Your task to perform on an android device: create a new album in the google photos Image 0: 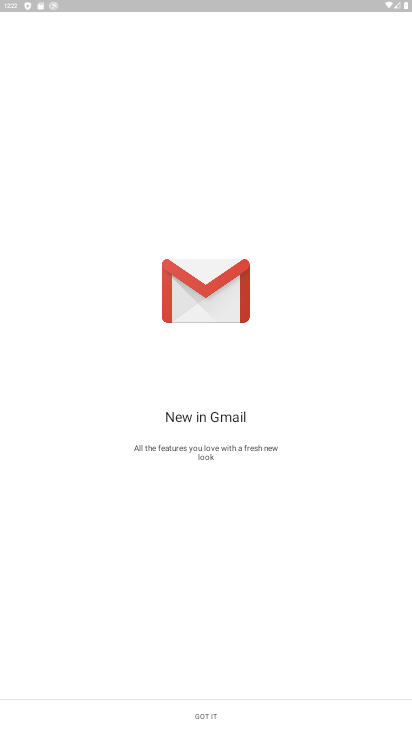
Step 0: click (212, 713)
Your task to perform on an android device: create a new album in the google photos Image 1: 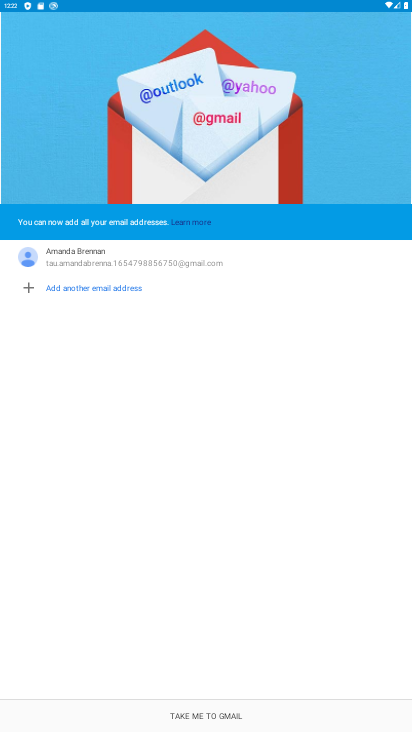
Step 1: press home button
Your task to perform on an android device: create a new album in the google photos Image 2: 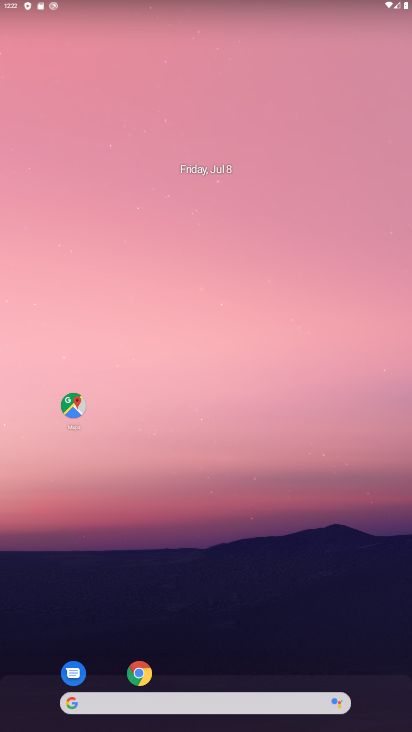
Step 2: drag from (218, 670) to (232, 62)
Your task to perform on an android device: create a new album in the google photos Image 3: 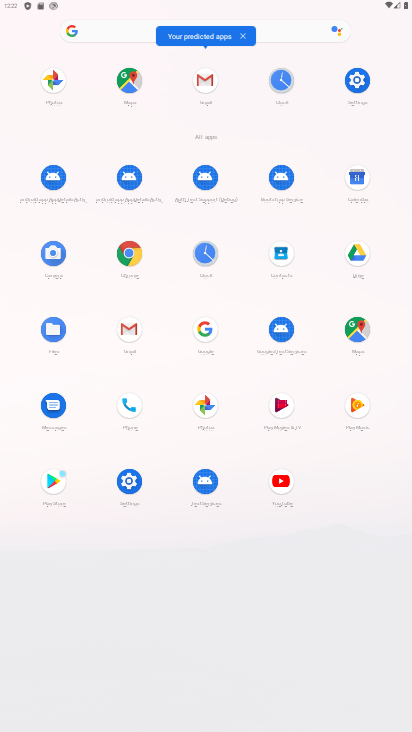
Step 3: click (201, 395)
Your task to perform on an android device: create a new album in the google photos Image 4: 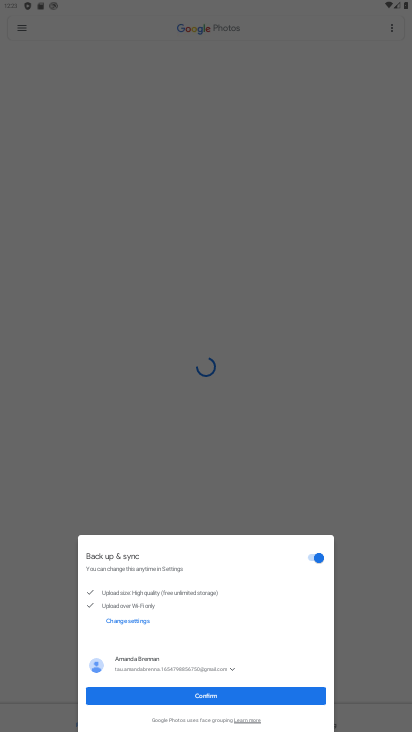
Step 4: click (214, 693)
Your task to perform on an android device: create a new album in the google photos Image 5: 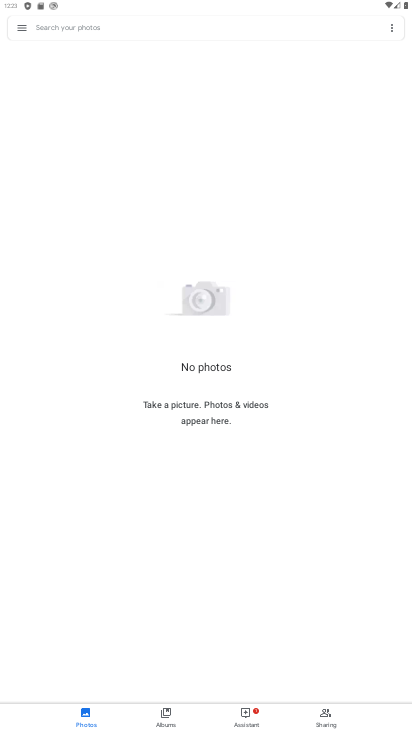
Step 5: click (161, 715)
Your task to perform on an android device: create a new album in the google photos Image 6: 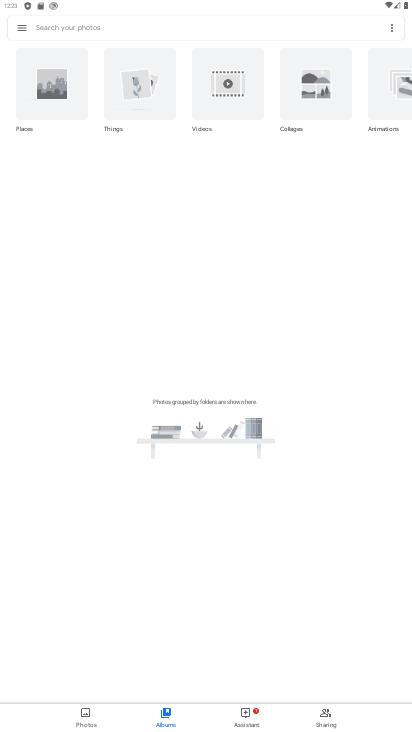
Step 6: click (388, 25)
Your task to perform on an android device: create a new album in the google photos Image 7: 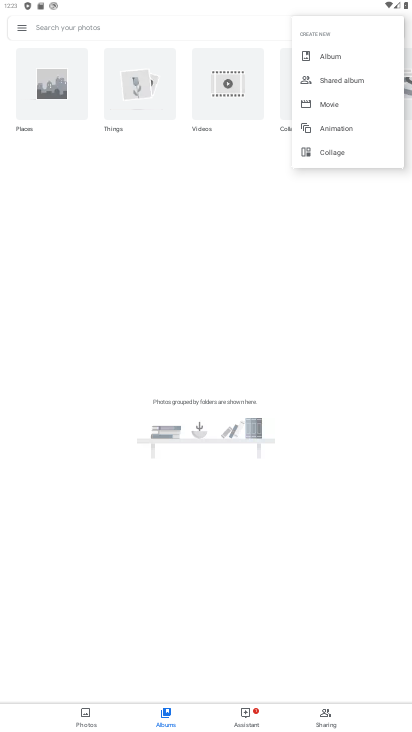
Step 7: click (337, 55)
Your task to perform on an android device: create a new album in the google photos Image 8: 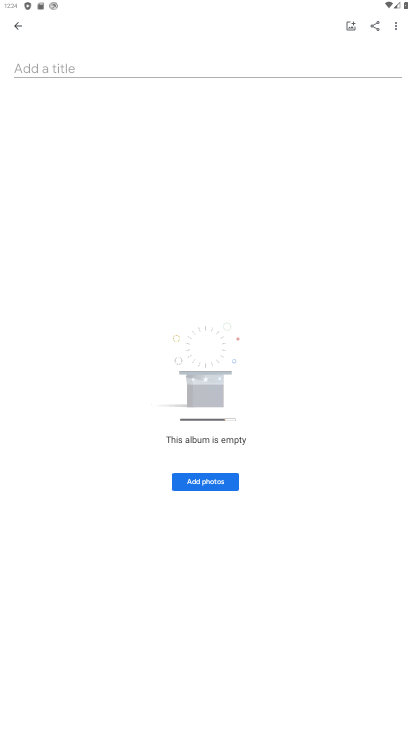
Step 8: task complete